Your task to perform on an android device: open chrome privacy settings Image 0: 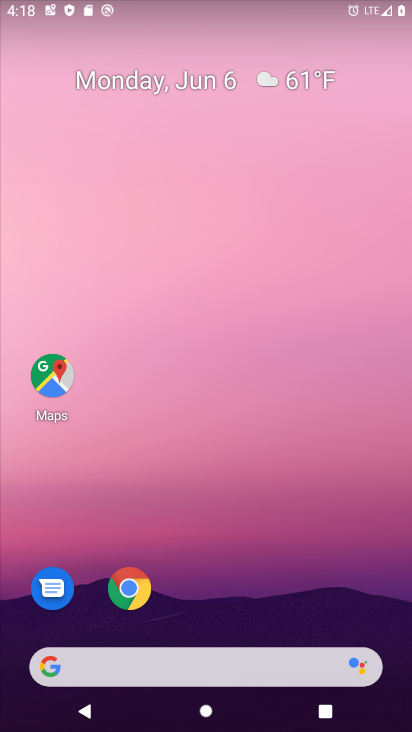
Step 0: click (135, 593)
Your task to perform on an android device: open chrome privacy settings Image 1: 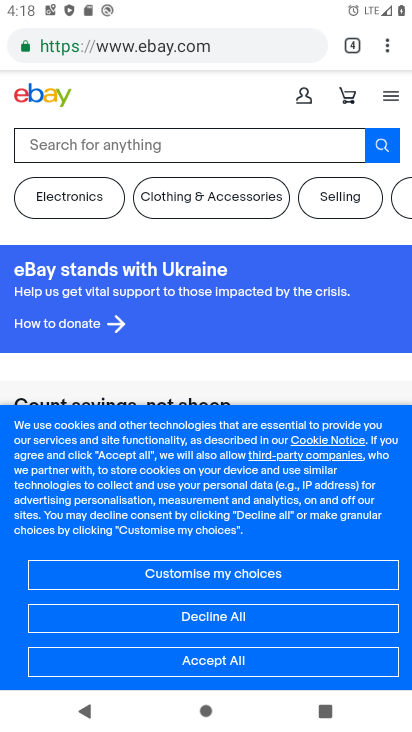
Step 1: click (382, 59)
Your task to perform on an android device: open chrome privacy settings Image 2: 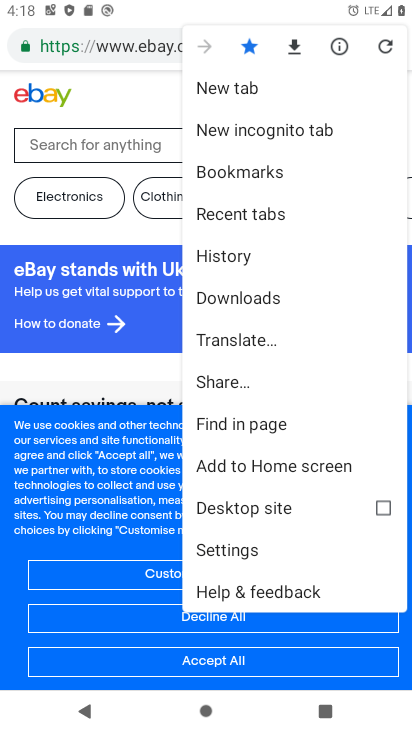
Step 2: click (266, 554)
Your task to perform on an android device: open chrome privacy settings Image 3: 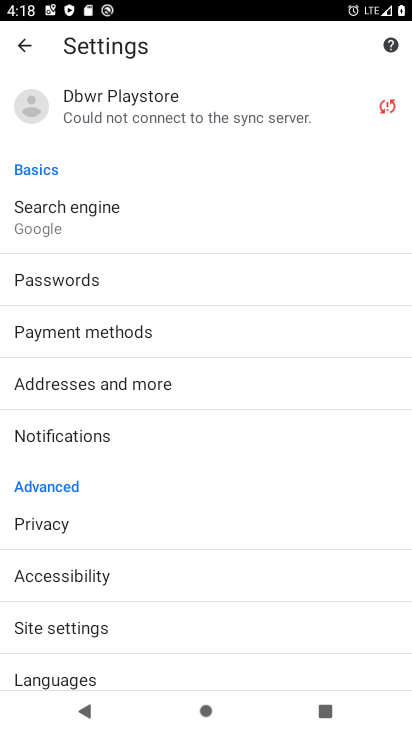
Step 3: click (143, 532)
Your task to perform on an android device: open chrome privacy settings Image 4: 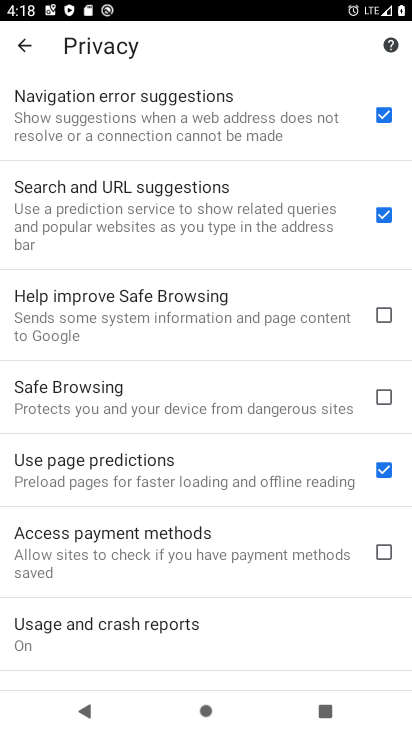
Step 4: task complete